Your task to perform on an android device: allow cookies in the chrome app Image 0: 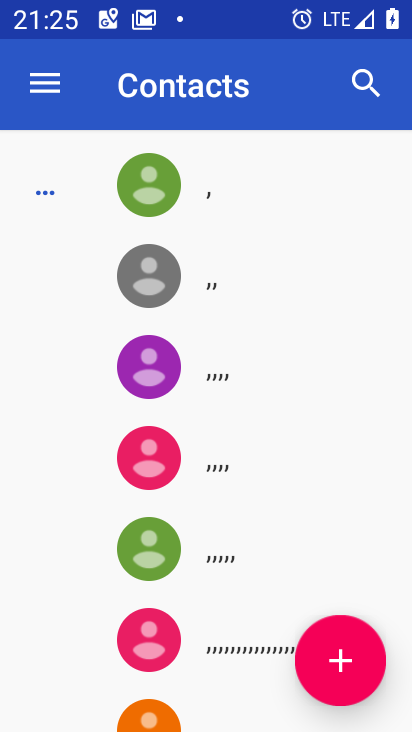
Step 0: press home button
Your task to perform on an android device: allow cookies in the chrome app Image 1: 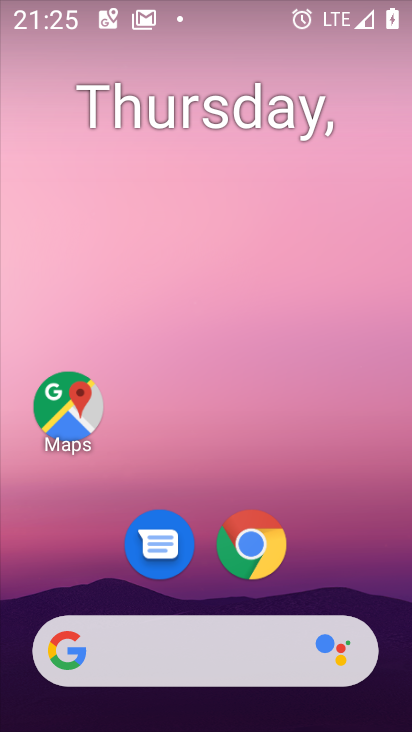
Step 1: click (247, 543)
Your task to perform on an android device: allow cookies in the chrome app Image 2: 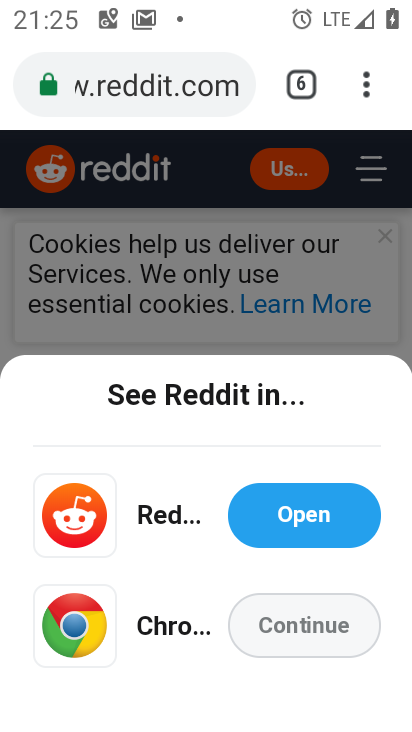
Step 2: click (362, 79)
Your task to perform on an android device: allow cookies in the chrome app Image 3: 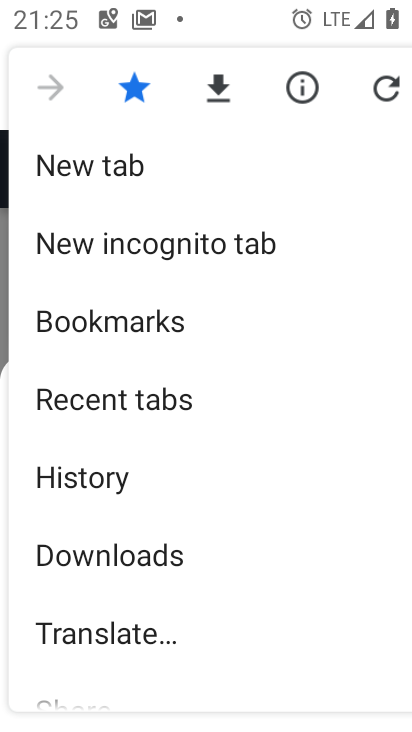
Step 3: drag from (160, 624) to (232, 255)
Your task to perform on an android device: allow cookies in the chrome app Image 4: 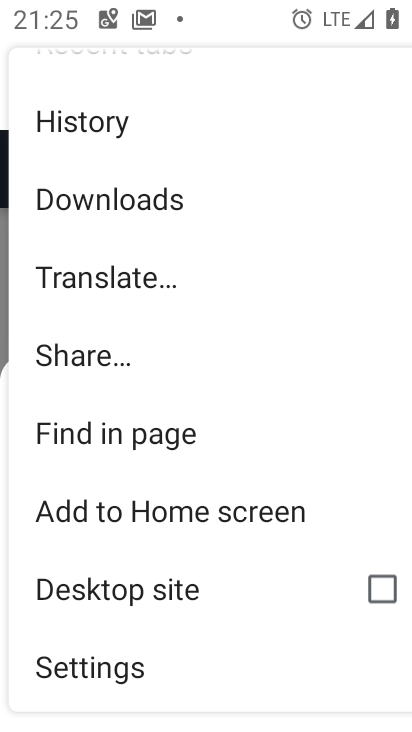
Step 4: click (130, 669)
Your task to perform on an android device: allow cookies in the chrome app Image 5: 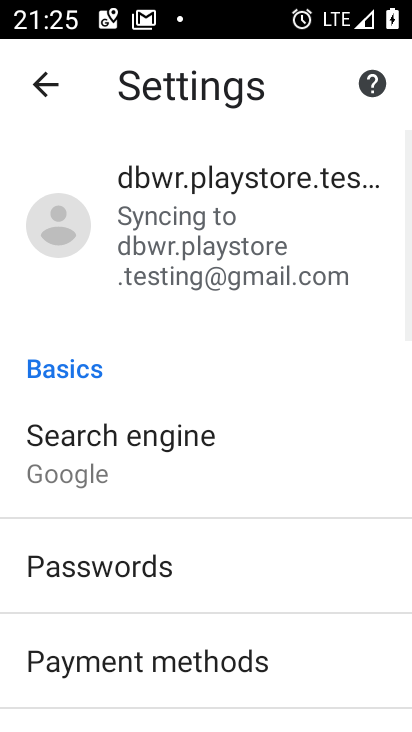
Step 5: drag from (130, 669) to (233, 250)
Your task to perform on an android device: allow cookies in the chrome app Image 6: 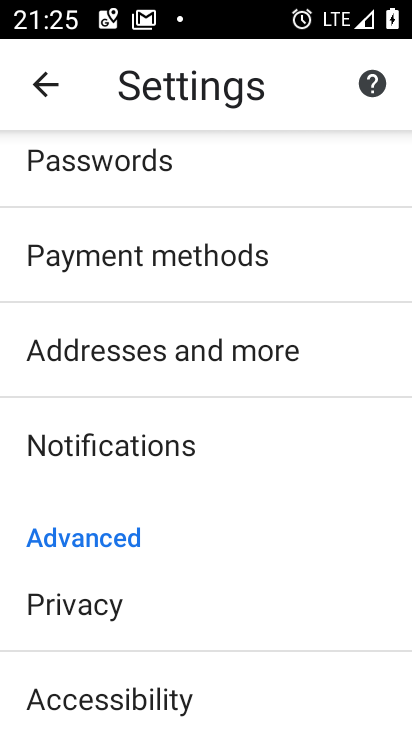
Step 6: drag from (204, 625) to (257, 247)
Your task to perform on an android device: allow cookies in the chrome app Image 7: 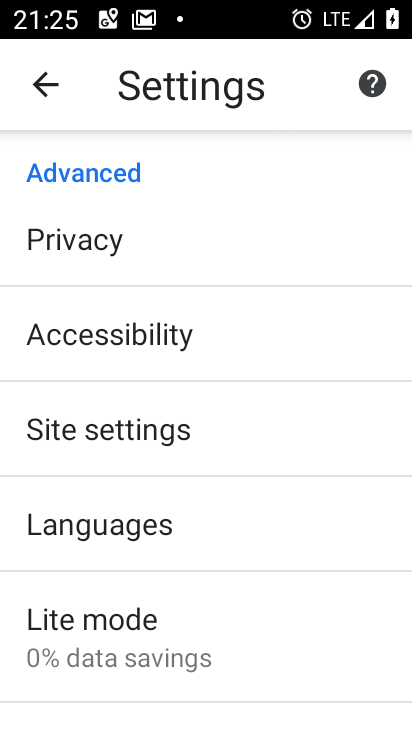
Step 7: click (129, 435)
Your task to perform on an android device: allow cookies in the chrome app Image 8: 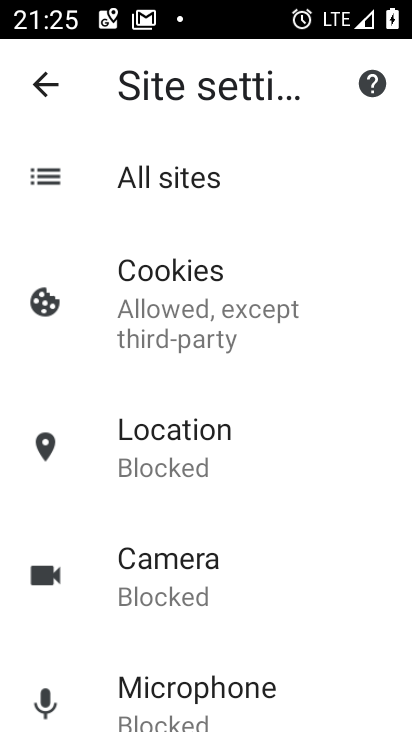
Step 8: click (175, 328)
Your task to perform on an android device: allow cookies in the chrome app Image 9: 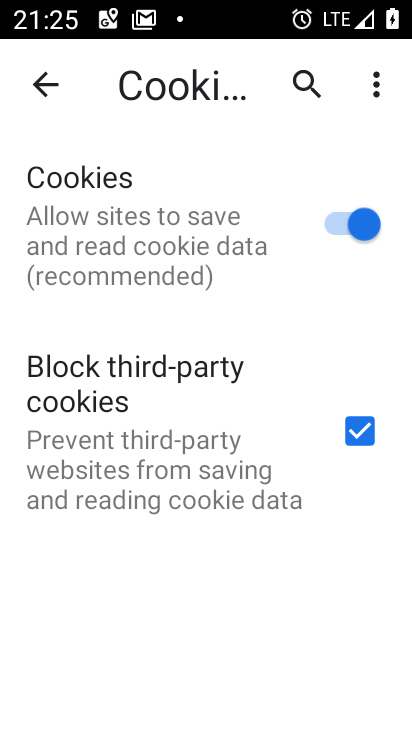
Step 9: task complete